Your task to perform on an android device: Open settings on Google Maps Image 0: 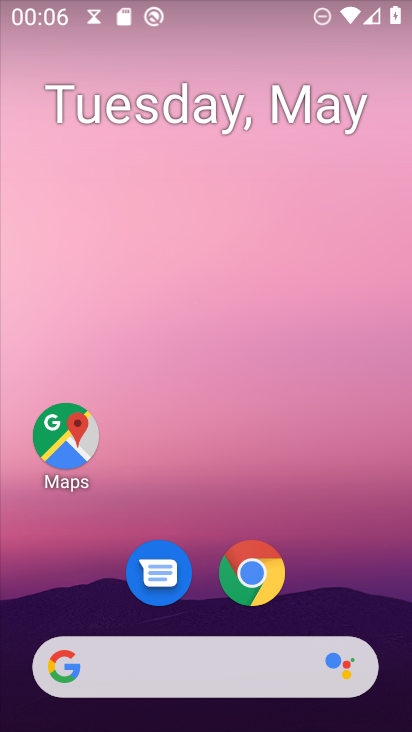
Step 0: click (60, 422)
Your task to perform on an android device: Open settings on Google Maps Image 1: 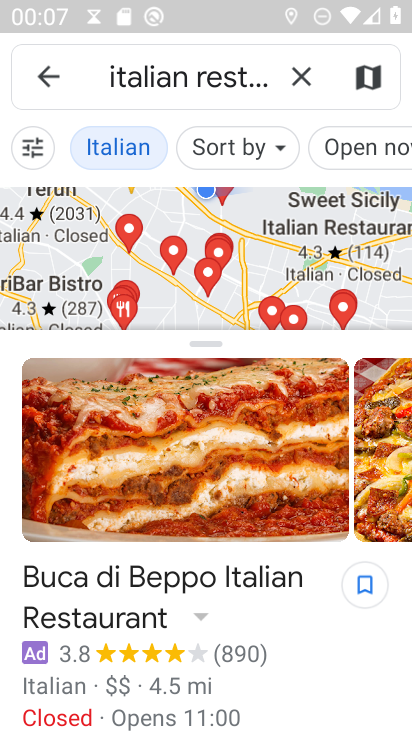
Step 1: press home button
Your task to perform on an android device: Open settings on Google Maps Image 2: 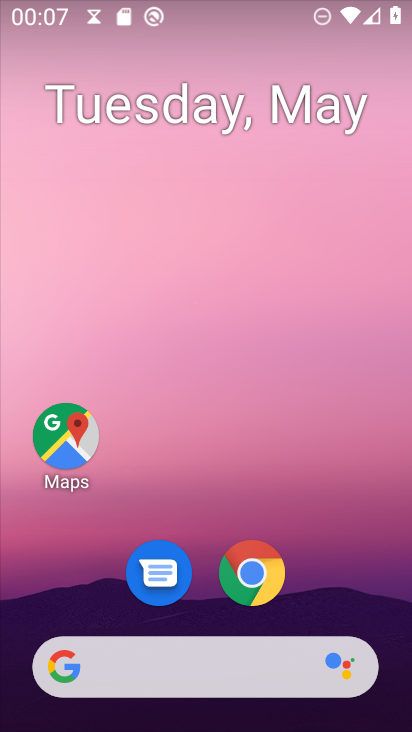
Step 2: click (65, 422)
Your task to perform on an android device: Open settings on Google Maps Image 3: 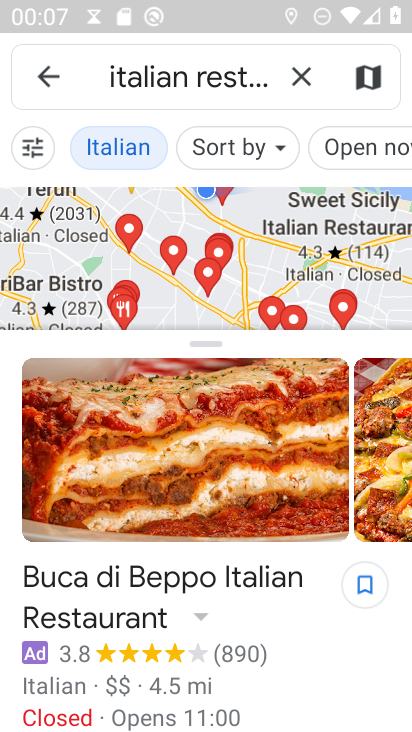
Step 3: click (308, 83)
Your task to perform on an android device: Open settings on Google Maps Image 4: 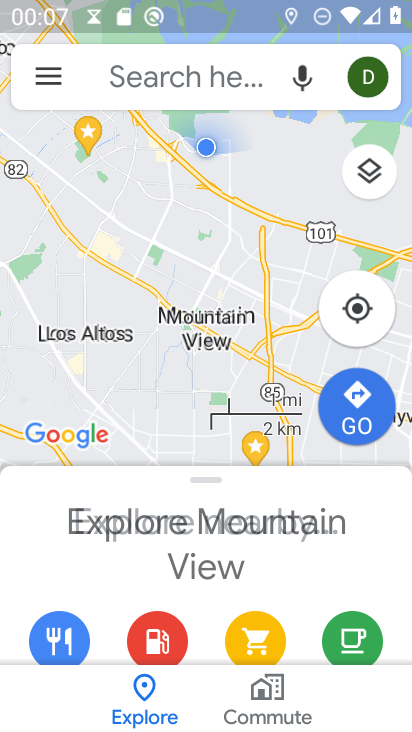
Step 4: click (42, 72)
Your task to perform on an android device: Open settings on Google Maps Image 5: 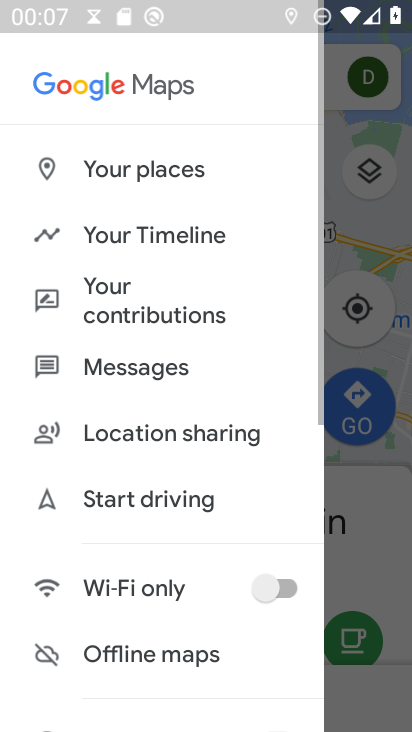
Step 5: drag from (218, 566) to (181, 26)
Your task to perform on an android device: Open settings on Google Maps Image 6: 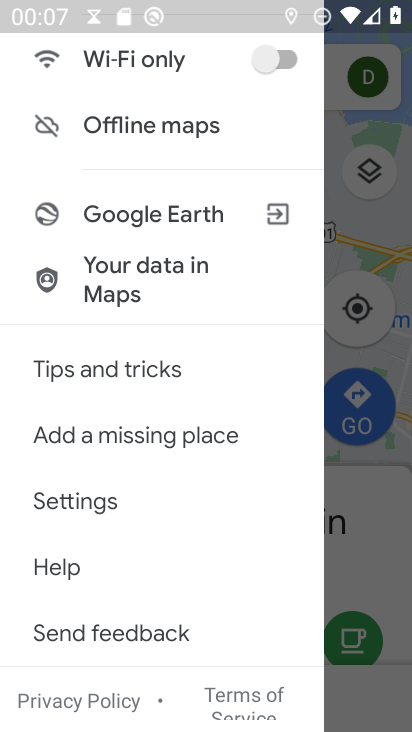
Step 6: click (104, 492)
Your task to perform on an android device: Open settings on Google Maps Image 7: 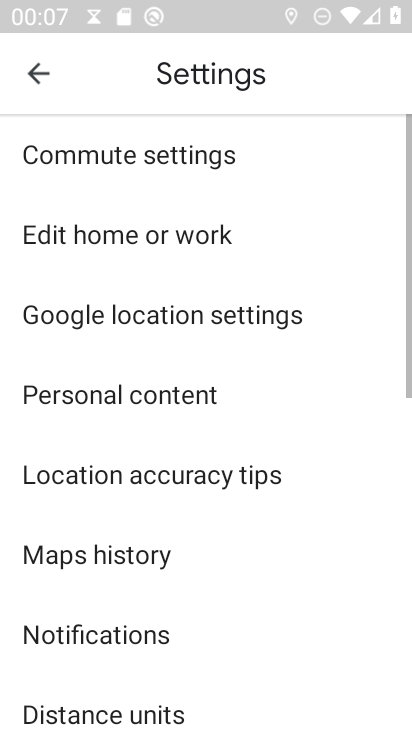
Step 7: task complete